Your task to perform on an android device: Open Maps and search for coffee Image 0: 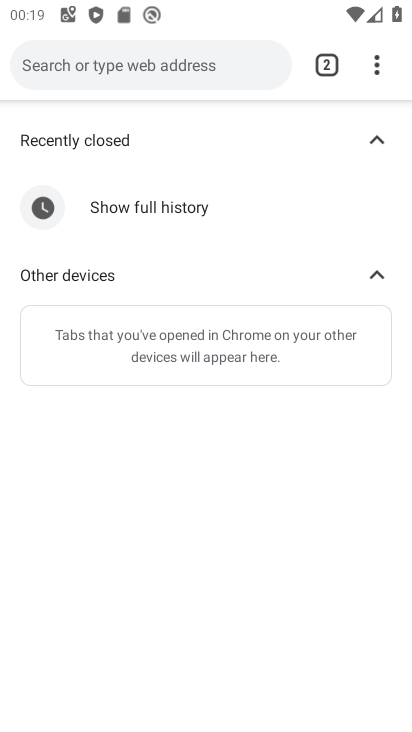
Step 0: click (170, 59)
Your task to perform on an android device: Open Maps and search for coffee Image 1: 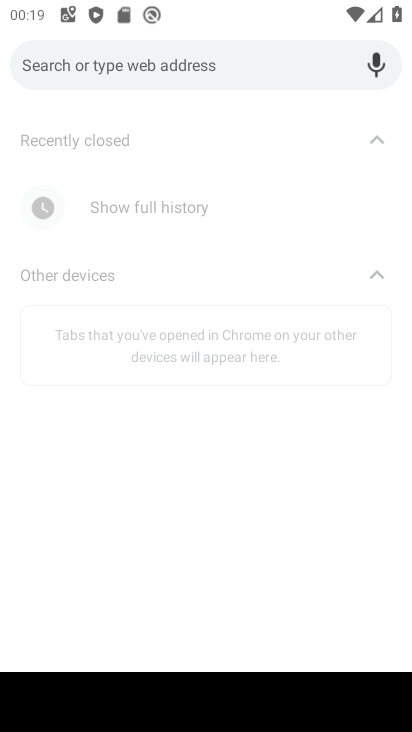
Step 1: type "coffee"
Your task to perform on an android device: Open Maps and search for coffee Image 2: 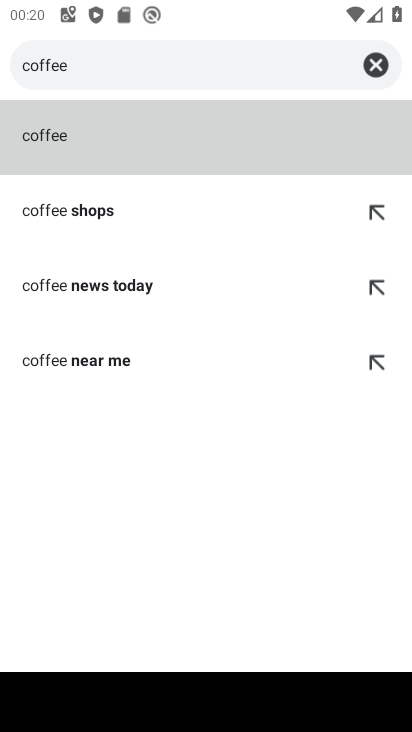
Step 2: press home button
Your task to perform on an android device: Open Maps and search for coffee Image 3: 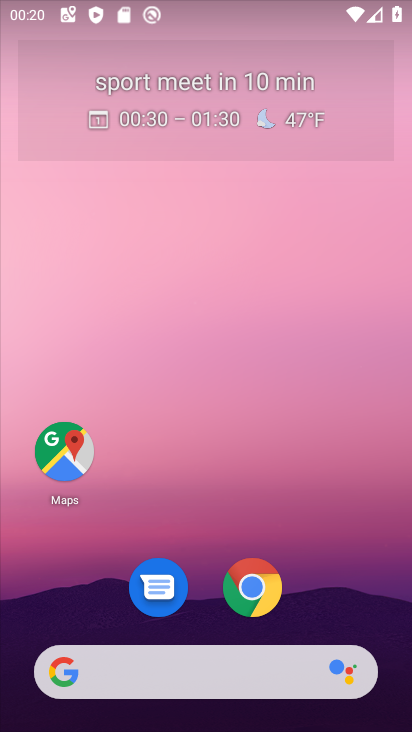
Step 3: click (60, 448)
Your task to perform on an android device: Open Maps and search for coffee Image 4: 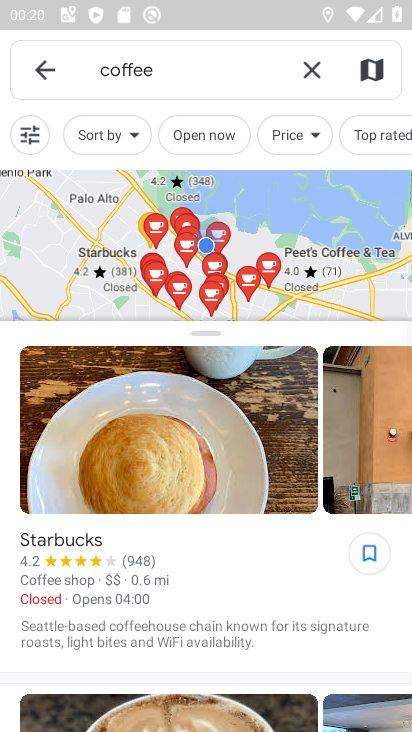
Step 4: task complete